Your task to perform on an android device: Open settings Image 0: 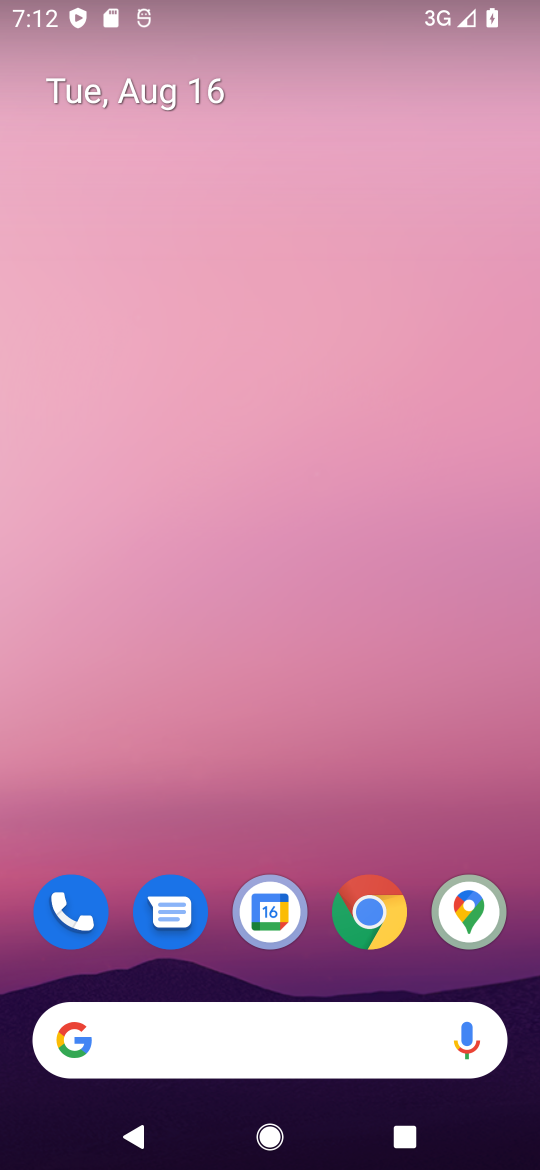
Step 0: drag from (432, 975) to (401, 44)
Your task to perform on an android device: Open settings Image 1: 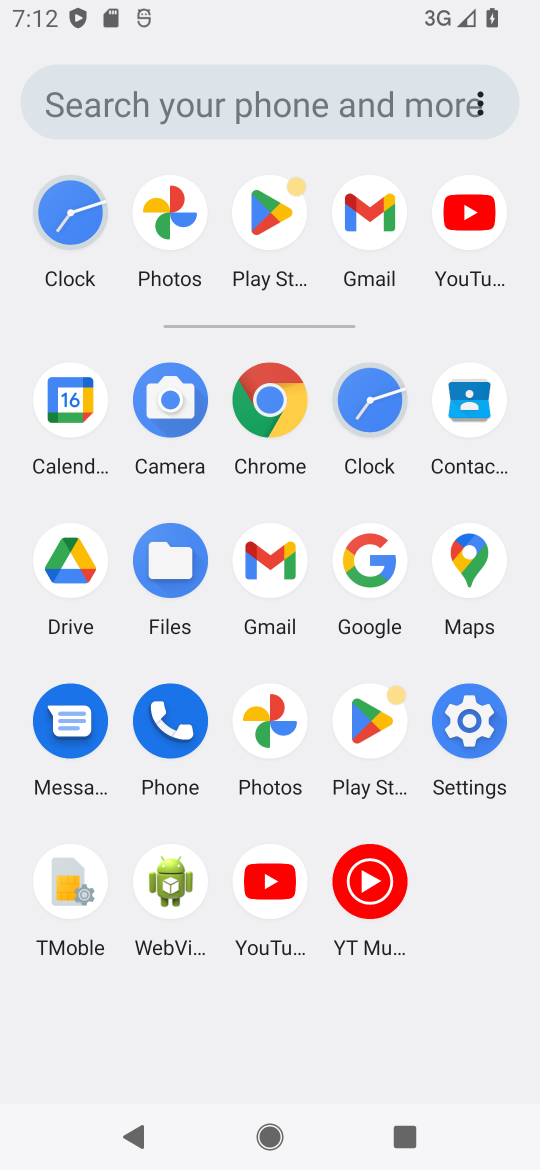
Step 1: click (467, 722)
Your task to perform on an android device: Open settings Image 2: 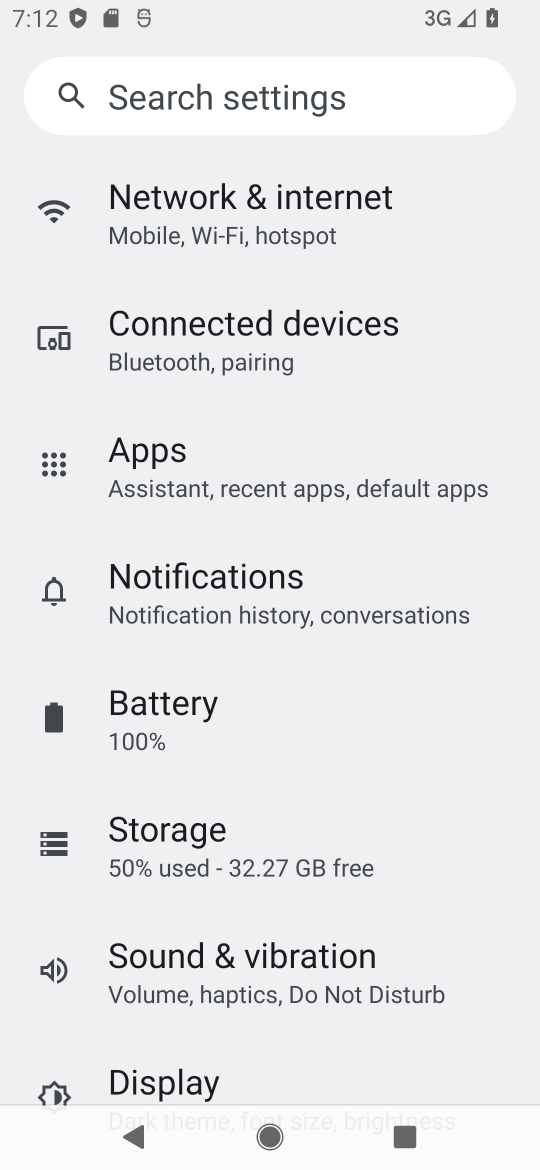
Step 2: drag from (430, 964) to (403, 415)
Your task to perform on an android device: Open settings Image 3: 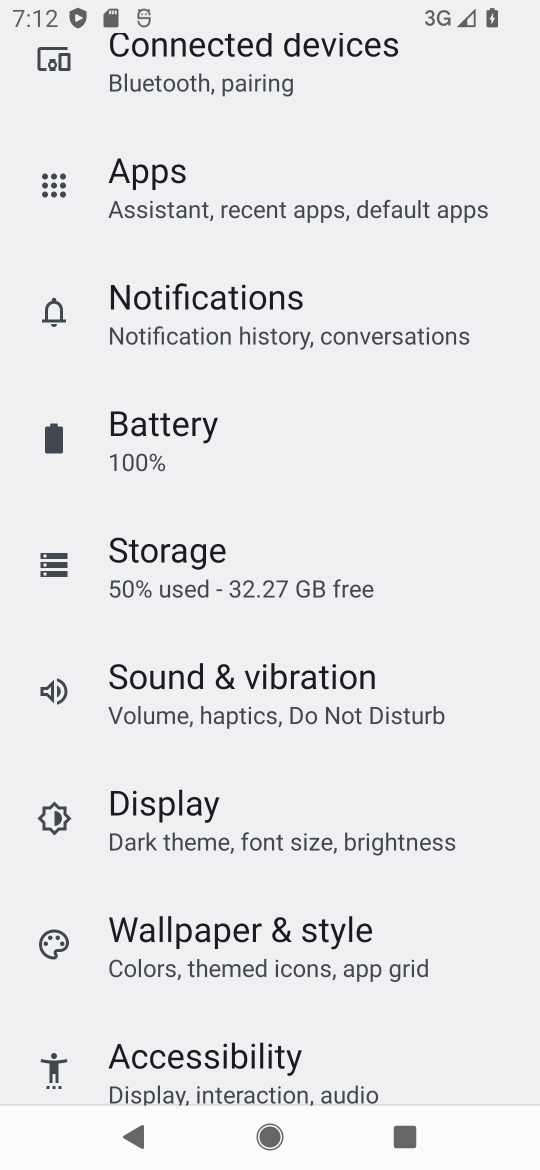
Step 3: drag from (422, 1014) to (465, 488)
Your task to perform on an android device: Open settings Image 4: 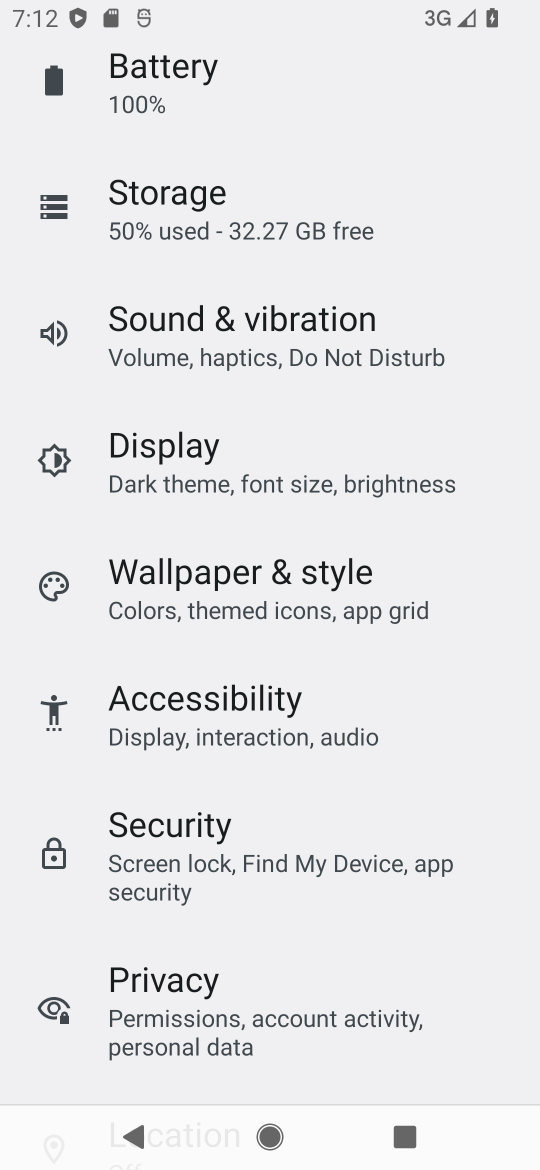
Step 4: drag from (412, 1002) to (452, 460)
Your task to perform on an android device: Open settings Image 5: 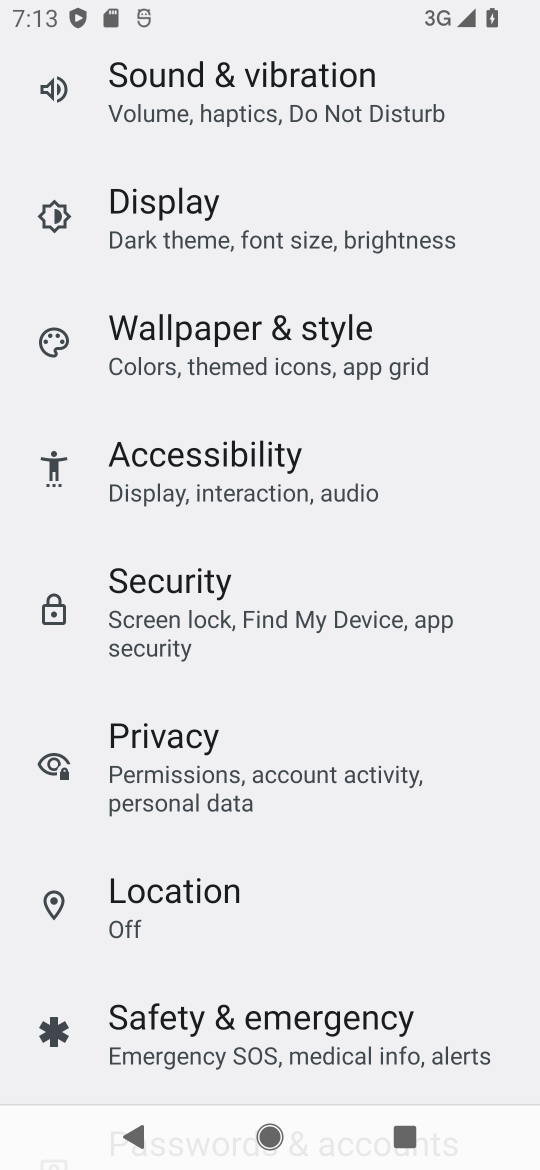
Step 5: drag from (424, 1001) to (473, 349)
Your task to perform on an android device: Open settings Image 6: 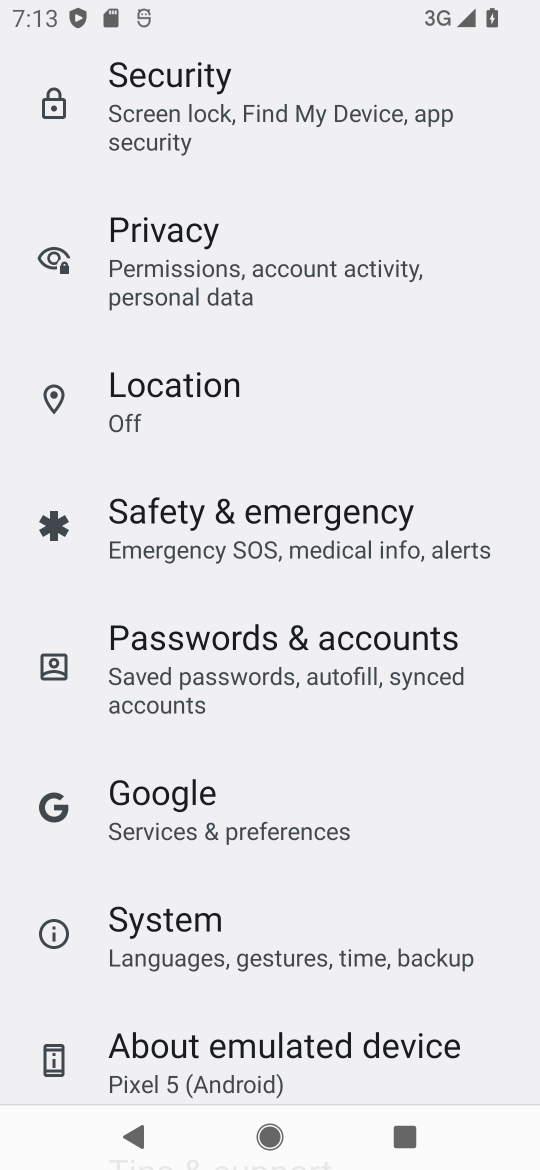
Step 6: click (454, 295)
Your task to perform on an android device: Open settings Image 7: 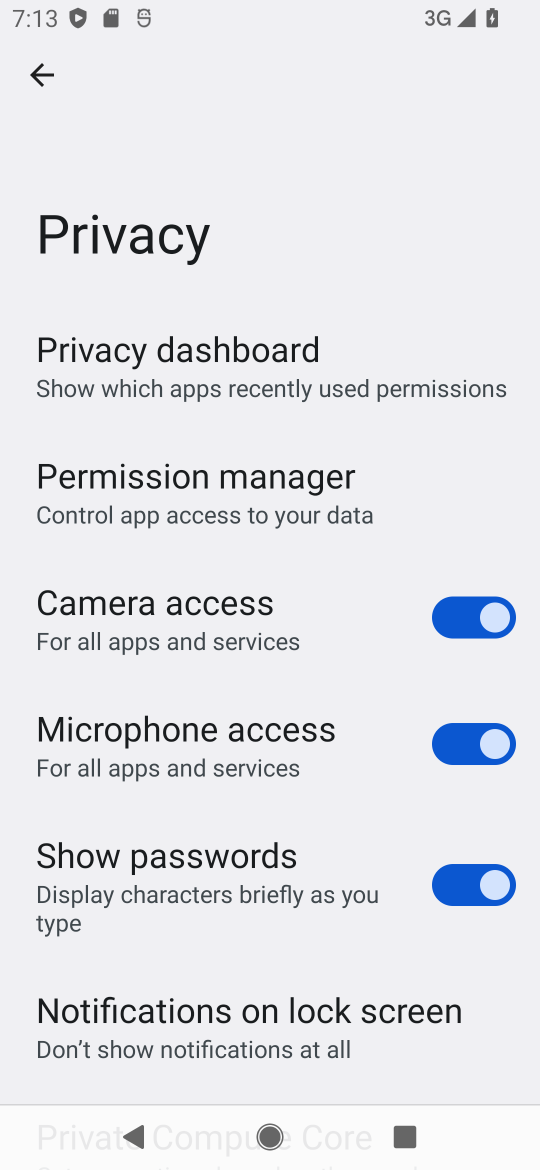
Step 7: task complete